Your task to perform on an android device: Toggle the flashlight Image 0: 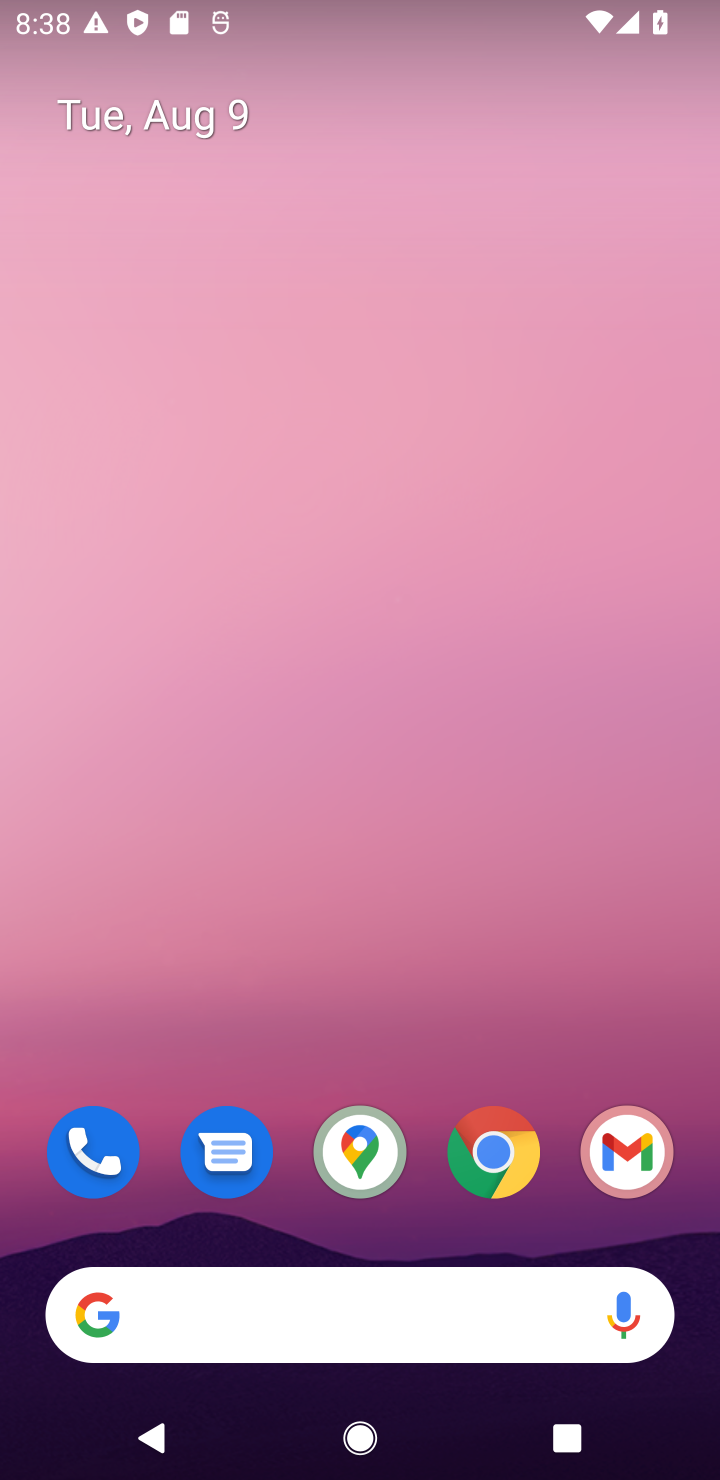
Step 0: drag from (303, 1042) to (399, 758)
Your task to perform on an android device: Toggle the flashlight Image 1: 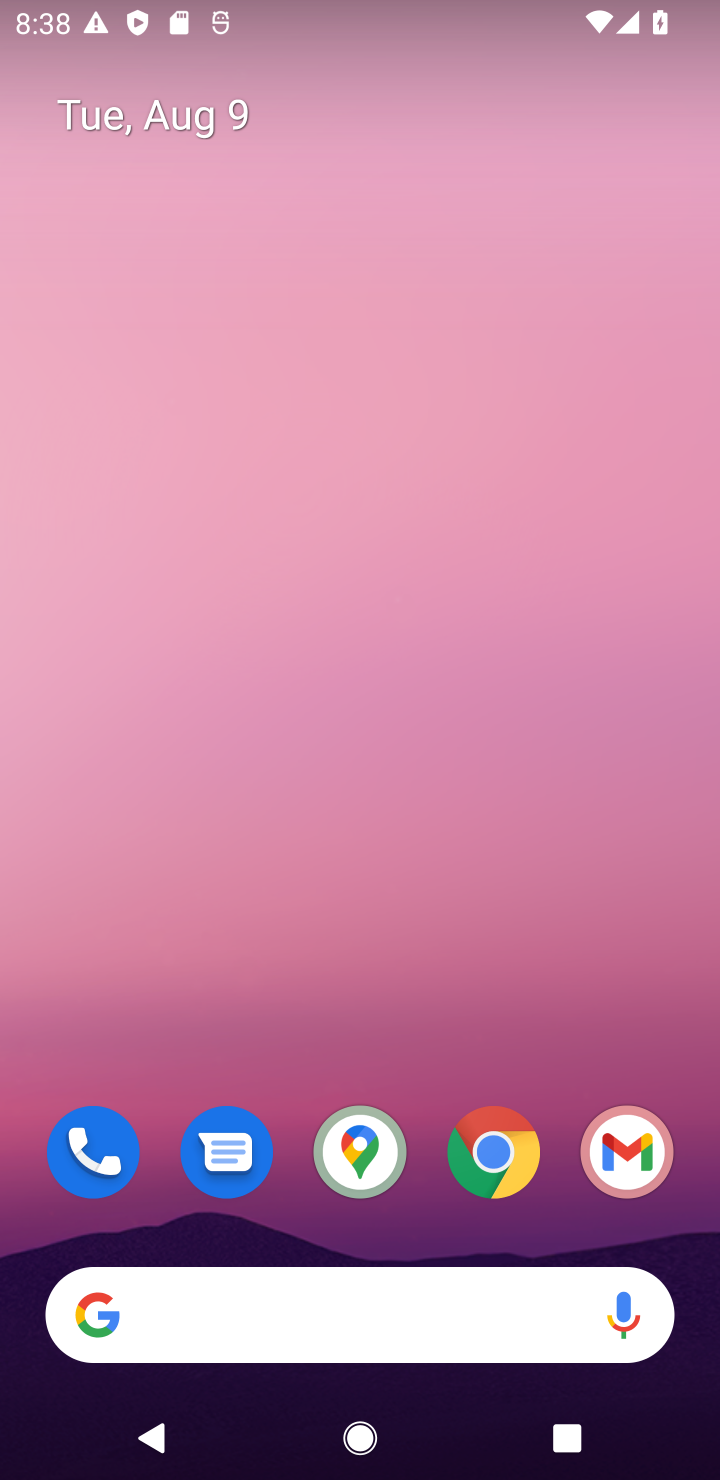
Step 1: drag from (293, 940) to (319, 145)
Your task to perform on an android device: Toggle the flashlight Image 2: 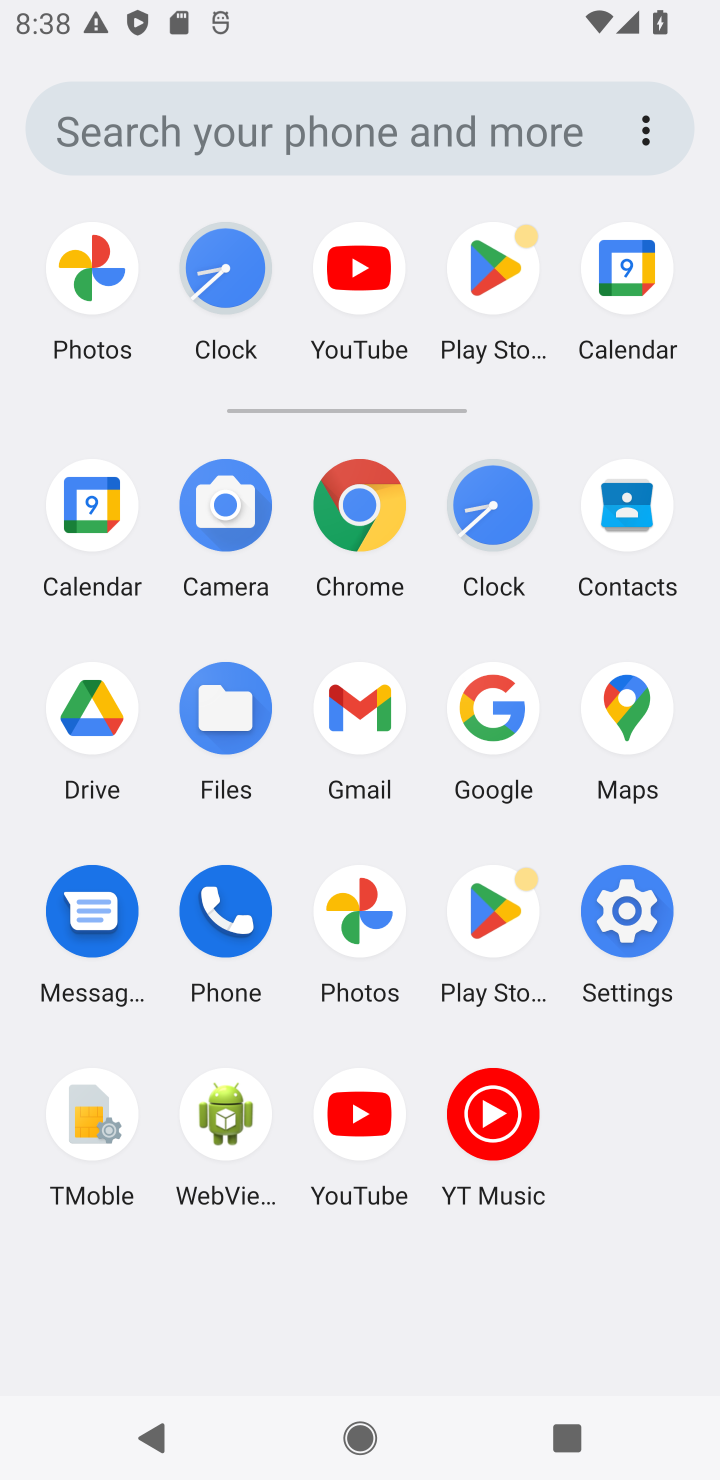
Step 2: click (624, 978)
Your task to perform on an android device: Toggle the flashlight Image 3: 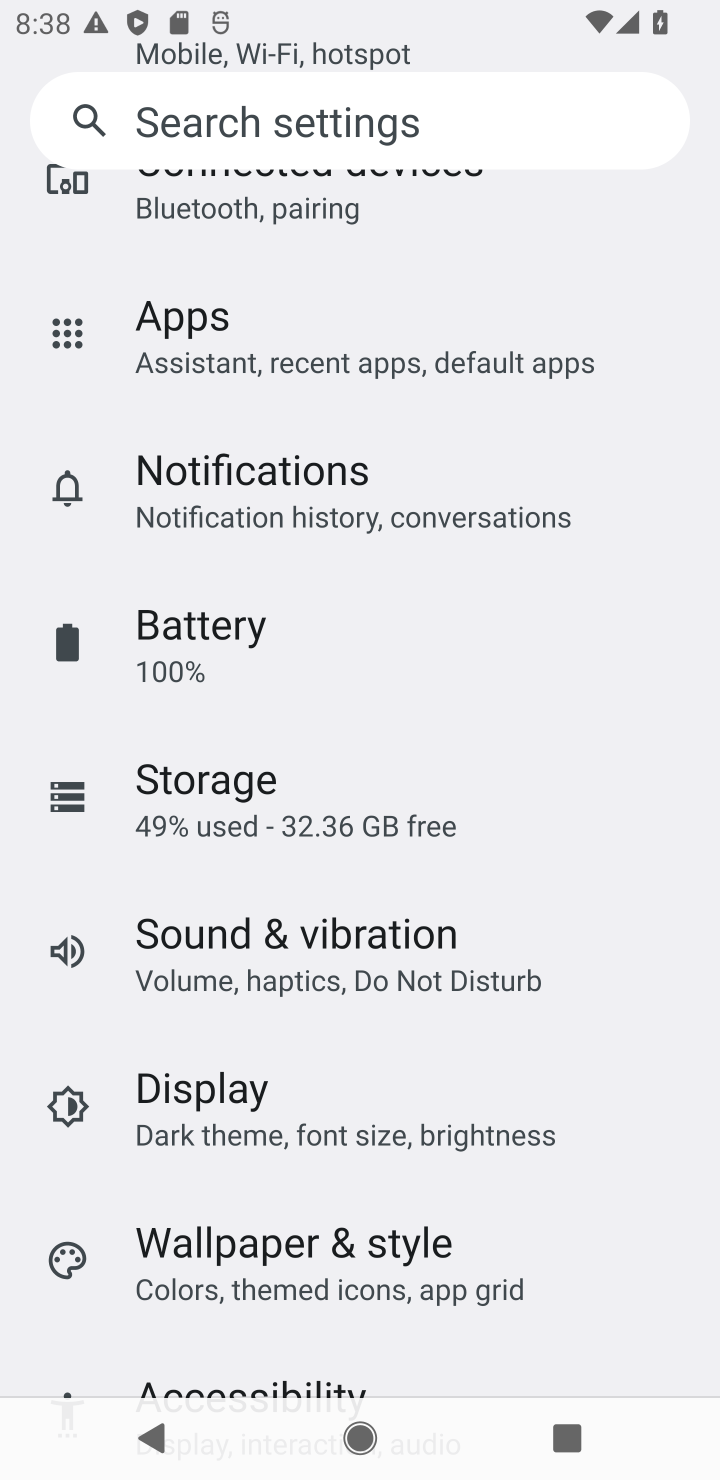
Step 3: task complete